Your task to perform on an android device: turn on showing notifications on the lock screen Image 0: 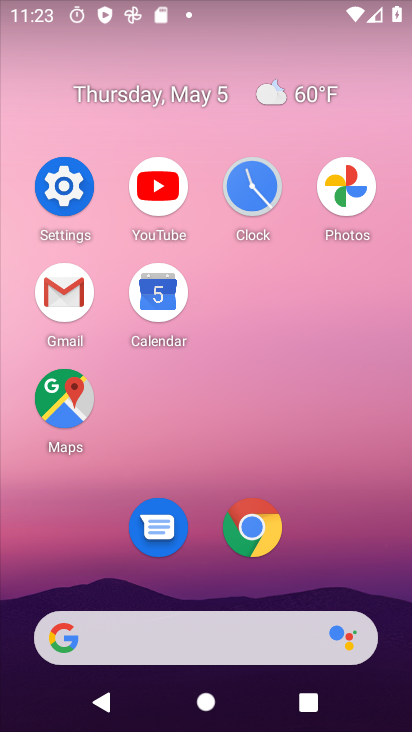
Step 0: click (75, 202)
Your task to perform on an android device: turn on showing notifications on the lock screen Image 1: 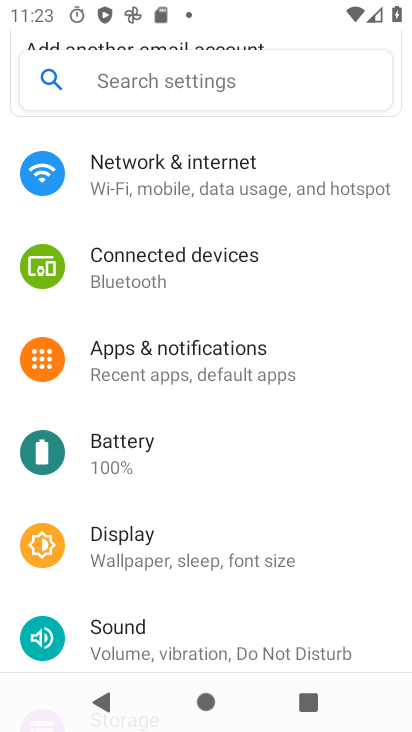
Step 1: click (203, 367)
Your task to perform on an android device: turn on showing notifications on the lock screen Image 2: 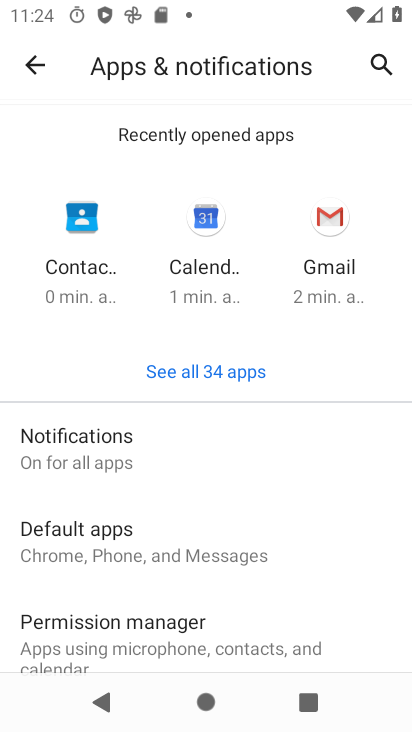
Step 2: click (97, 437)
Your task to perform on an android device: turn on showing notifications on the lock screen Image 3: 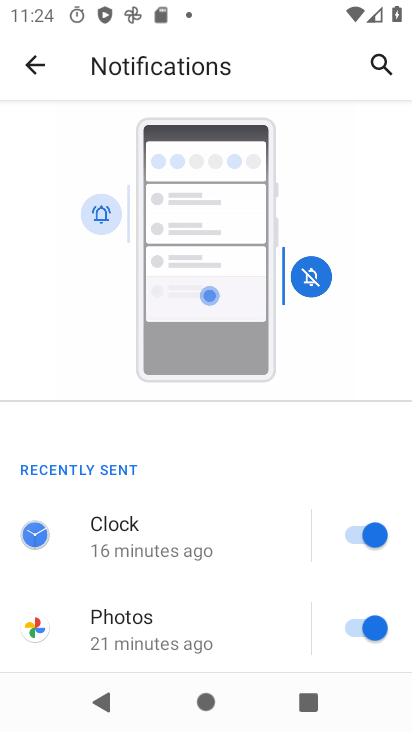
Step 3: drag from (186, 592) to (274, 135)
Your task to perform on an android device: turn on showing notifications on the lock screen Image 4: 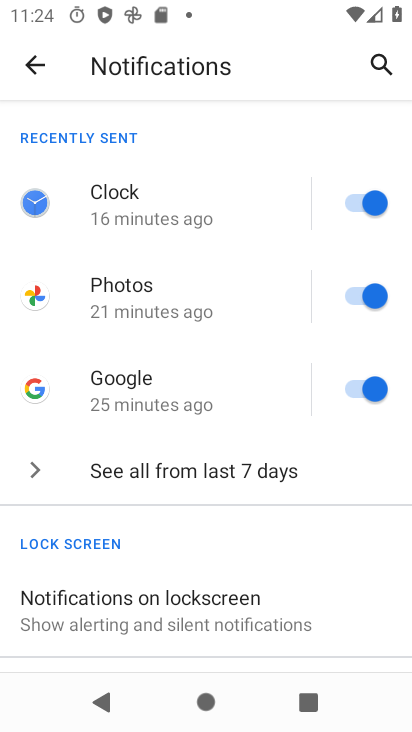
Step 4: click (318, 618)
Your task to perform on an android device: turn on showing notifications on the lock screen Image 5: 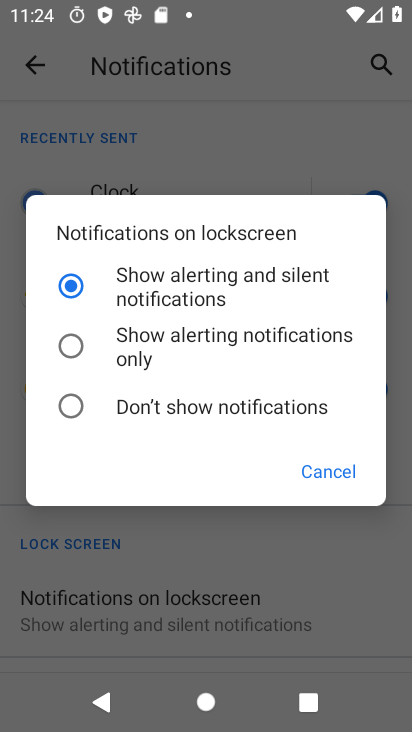
Step 5: task complete